Your task to perform on an android device: delete browsing data in the chrome app Image 0: 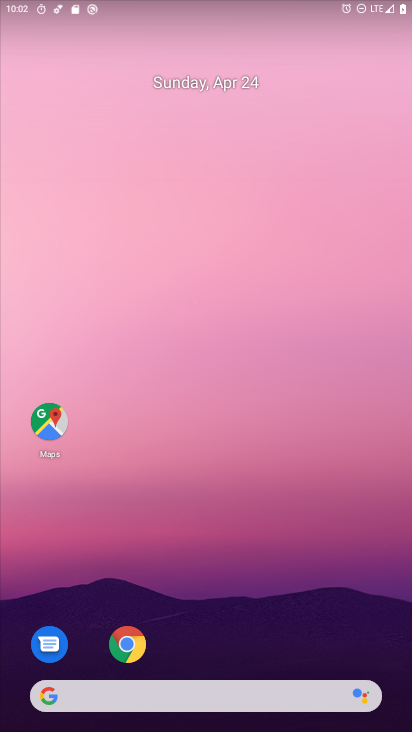
Step 0: drag from (209, 673) to (226, 290)
Your task to perform on an android device: delete browsing data in the chrome app Image 1: 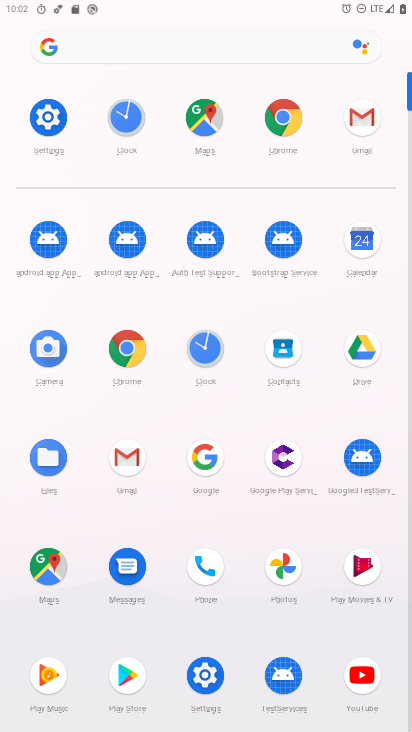
Step 1: click (280, 125)
Your task to perform on an android device: delete browsing data in the chrome app Image 2: 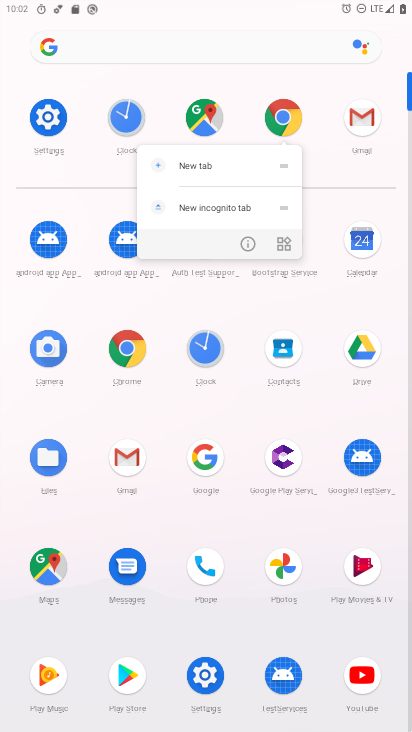
Step 2: click (291, 107)
Your task to perform on an android device: delete browsing data in the chrome app Image 3: 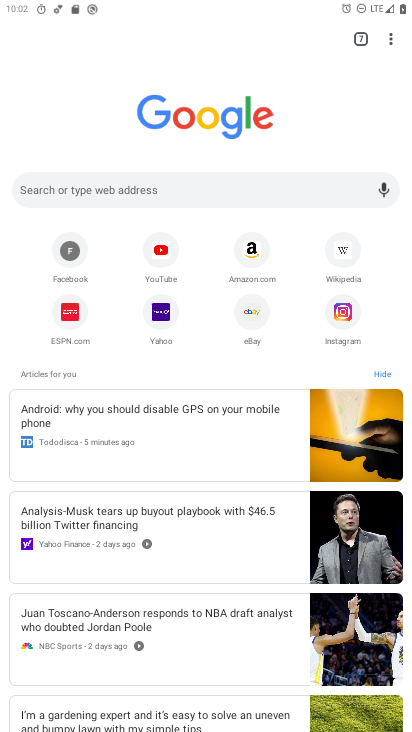
Step 3: drag from (391, 44) to (249, 270)
Your task to perform on an android device: delete browsing data in the chrome app Image 4: 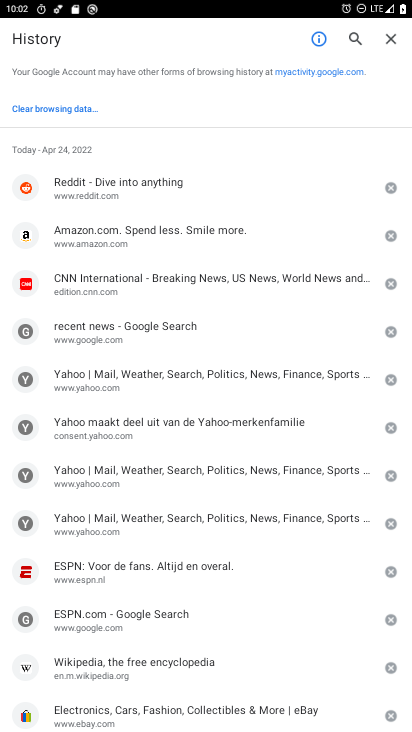
Step 4: click (53, 87)
Your task to perform on an android device: delete browsing data in the chrome app Image 5: 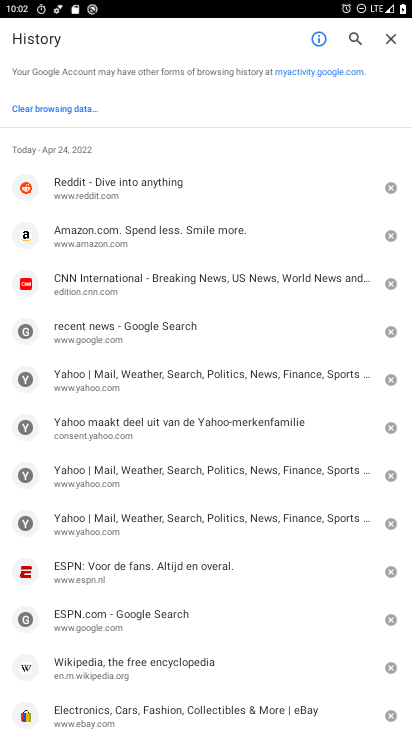
Step 5: click (58, 100)
Your task to perform on an android device: delete browsing data in the chrome app Image 6: 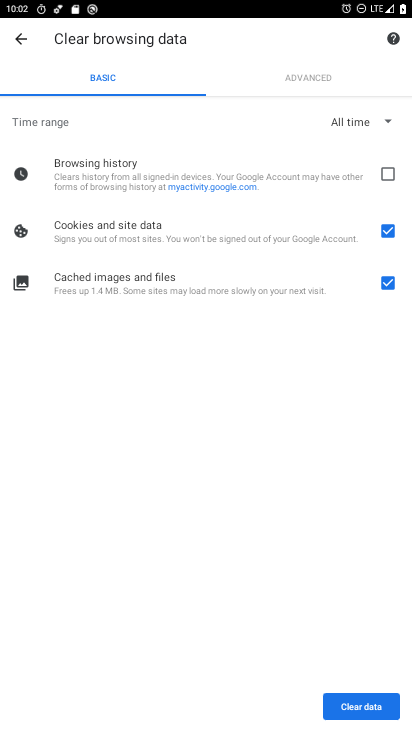
Step 6: click (380, 170)
Your task to perform on an android device: delete browsing data in the chrome app Image 7: 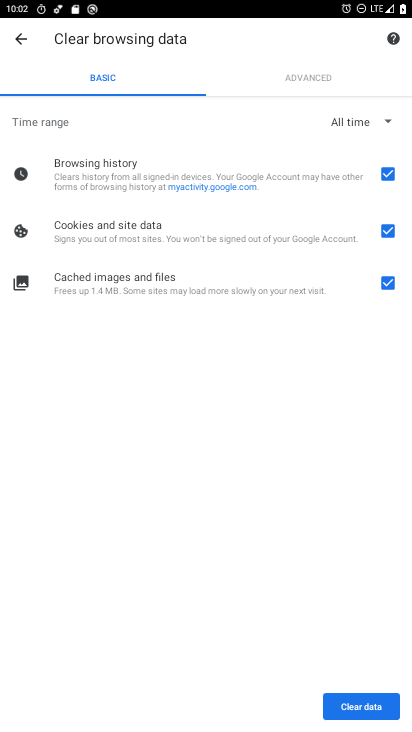
Step 7: click (365, 716)
Your task to perform on an android device: delete browsing data in the chrome app Image 8: 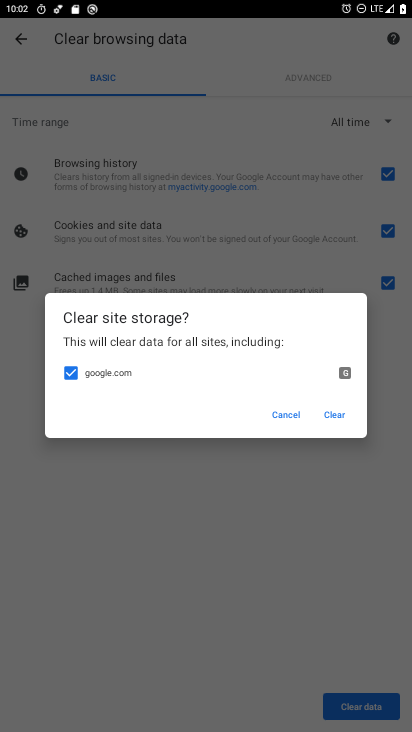
Step 8: click (342, 407)
Your task to perform on an android device: delete browsing data in the chrome app Image 9: 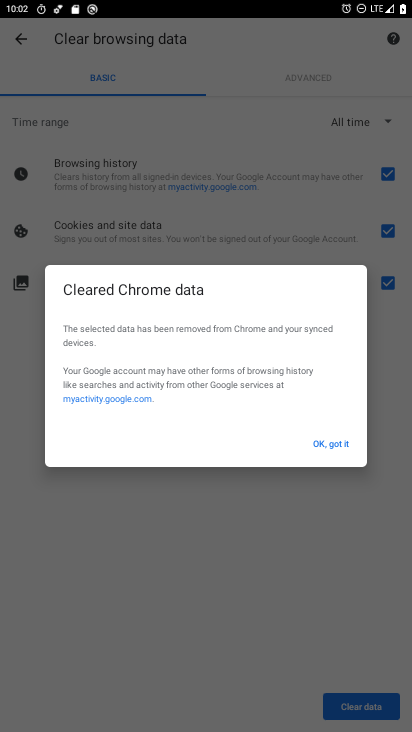
Step 9: click (319, 444)
Your task to perform on an android device: delete browsing data in the chrome app Image 10: 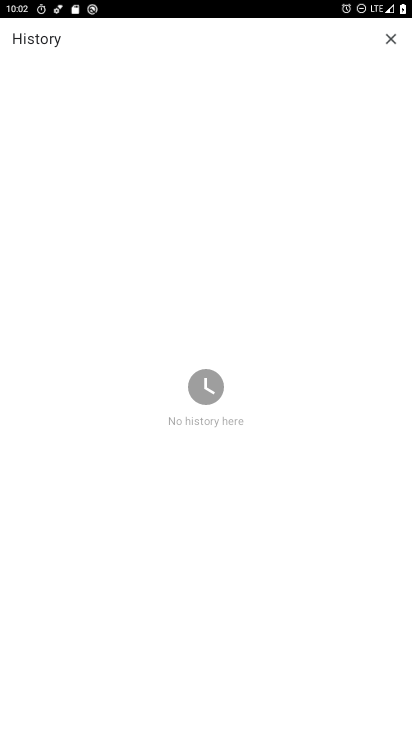
Step 10: task complete